Your task to perform on an android device: toggle location history Image 0: 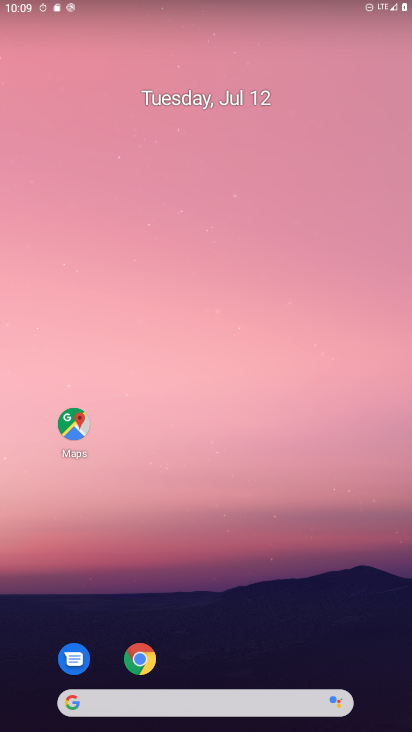
Step 0: drag from (388, 678) to (288, 0)
Your task to perform on an android device: toggle location history Image 1: 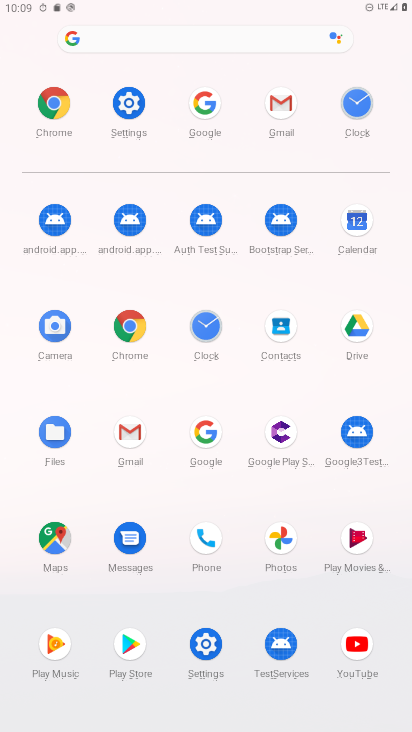
Step 1: click (214, 658)
Your task to perform on an android device: toggle location history Image 2: 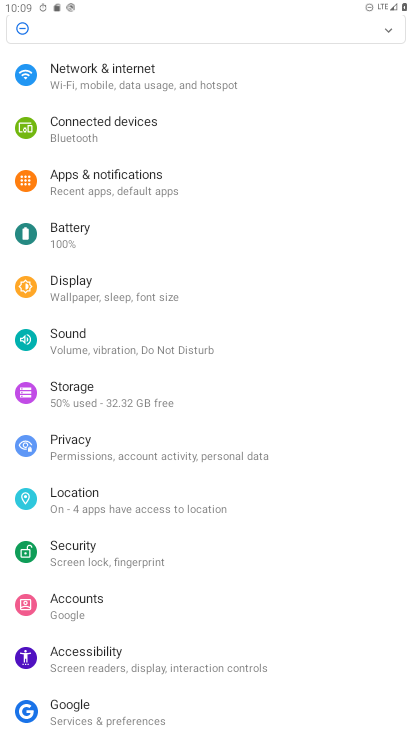
Step 2: click (100, 500)
Your task to perform on an android device: toggle location history Image 3: 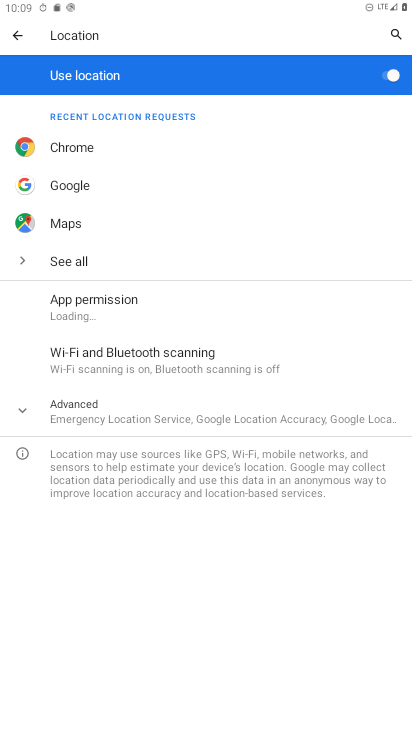
Step 3: click (111, 406)
Your task to perform on an android device: toggle location history Image 4: 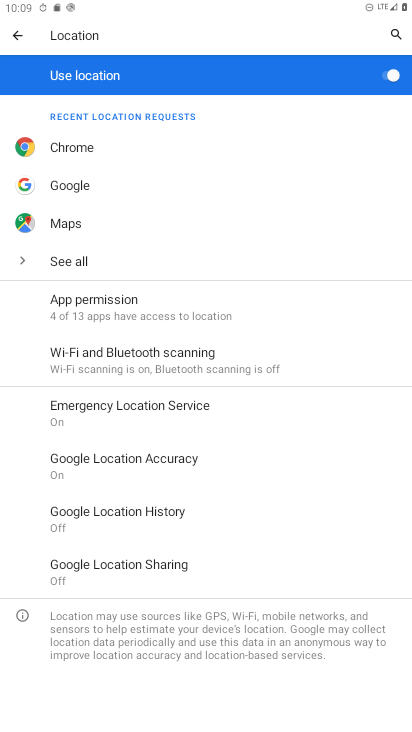
Step 4: click (213, 518)
Your task to perform on an android device: toggle location history Image 5: 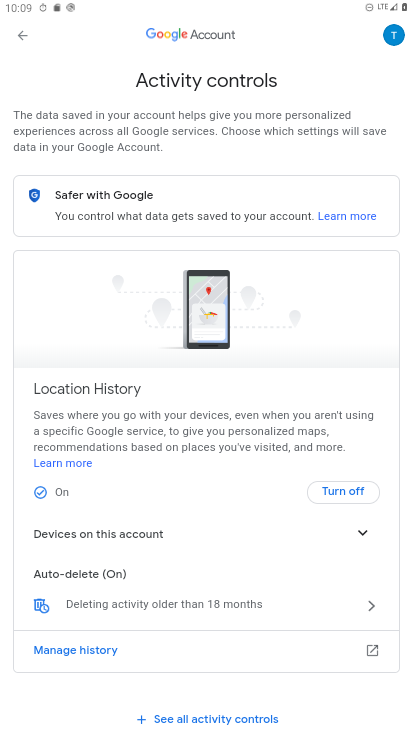
Step 5: click (364, 487)
Your task to perform on an android device: toggle location history Image 6: 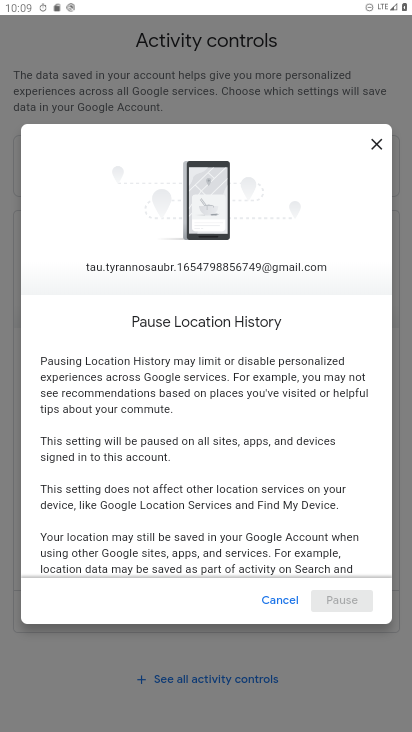
Step 6: task complete